Your task to perform on an android device: open a bookmark in the chrome app Image 0: 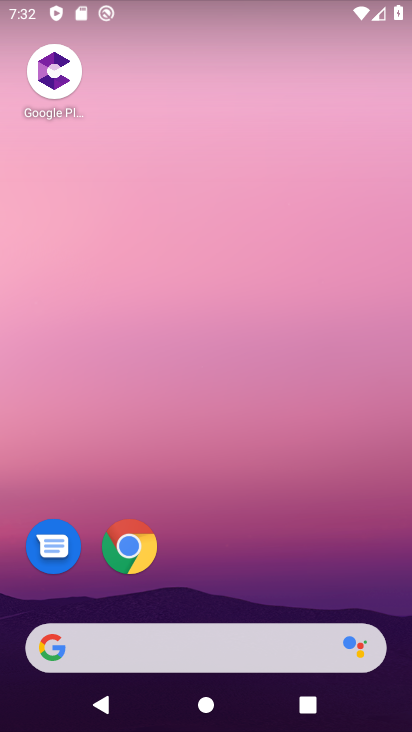
Step 0: click (131, 545)
Your task to perform on an android device: open a bookmark in the chrome app Image 1: 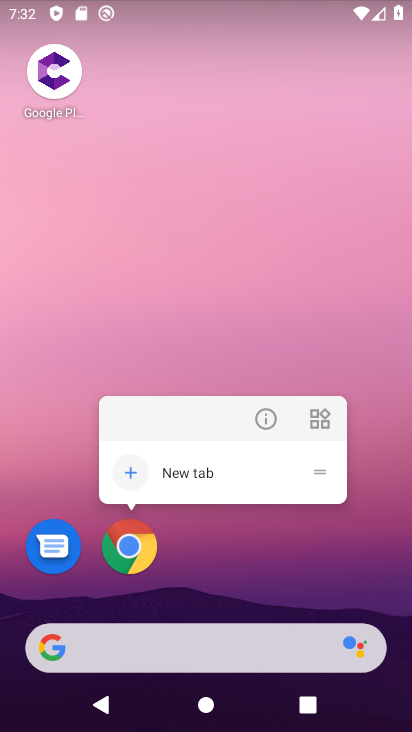
Step 1: click (131, 545)
Your task to perform on an android device: open a bookmark in the chrome app Image 2: 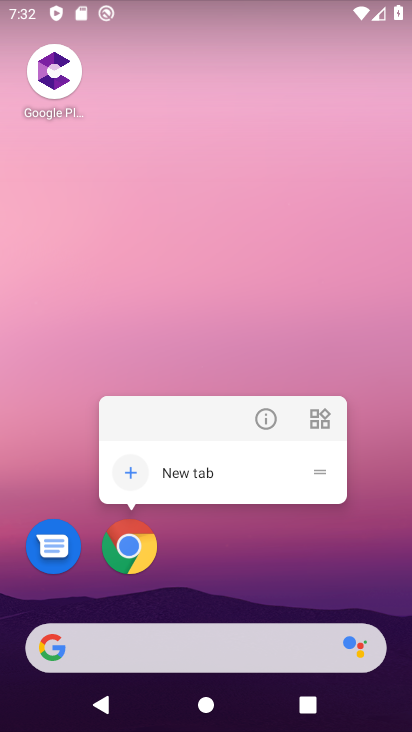
Step 2: click (131, 545)
Your task to perform on an android device: open a bookmark in the chrome app Image 3: 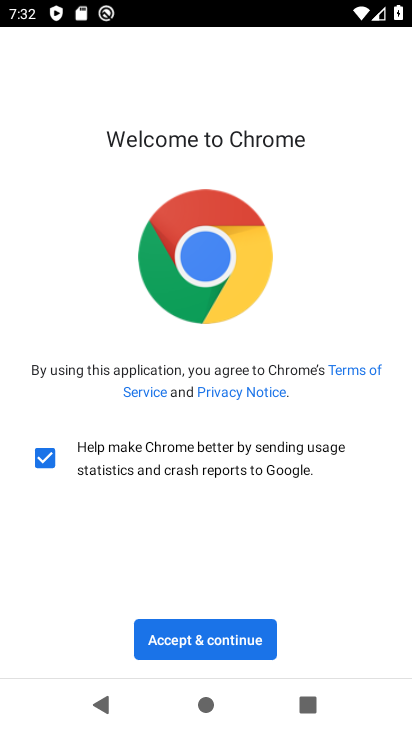
Step 3: click (191, 635)
Your task to perform on an android device: open a bookmark in the chrome app Image 4: 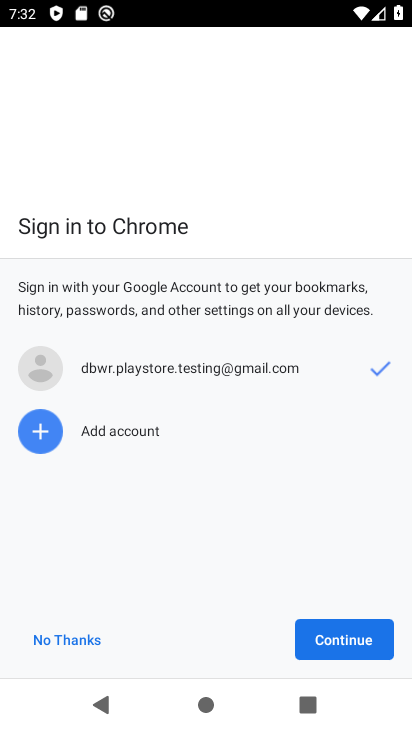
Step 4: click (318, 632)
Your task to perform on an android device: open a bookmark in the chrome app Image 5: 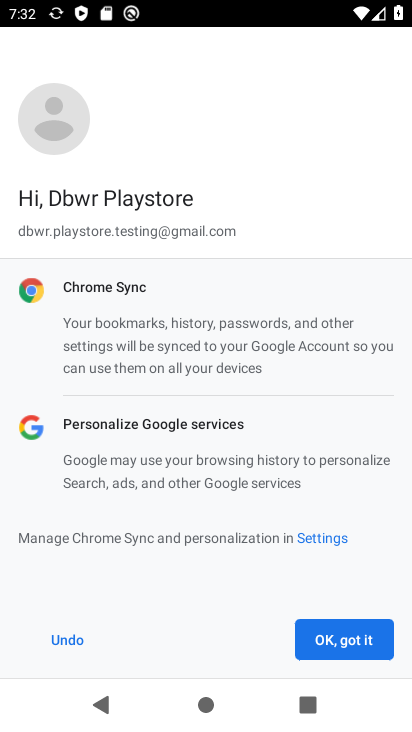
Step 5: click (318, 632)
Your task to perform on an android device: open a bookmark in the chrome app Image 6: 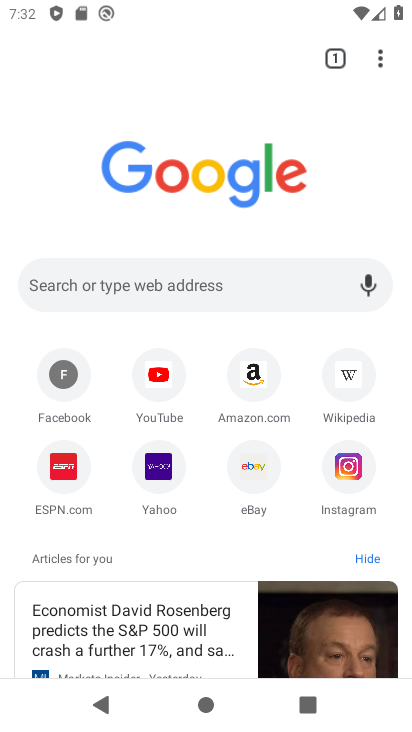
Step 6: click (376, 54)
Your task to perform on an android device: open a bookmark in the chrome app Image 7: 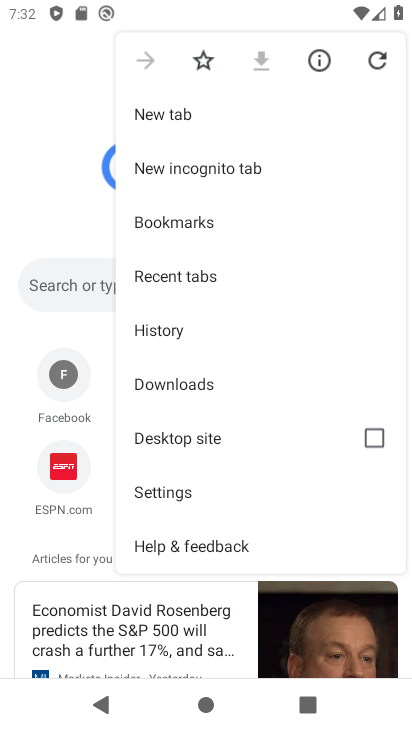
Step 7: click (238, 223)
Your task to perform on an android device: open a bookmark in the chrome app Image 8: 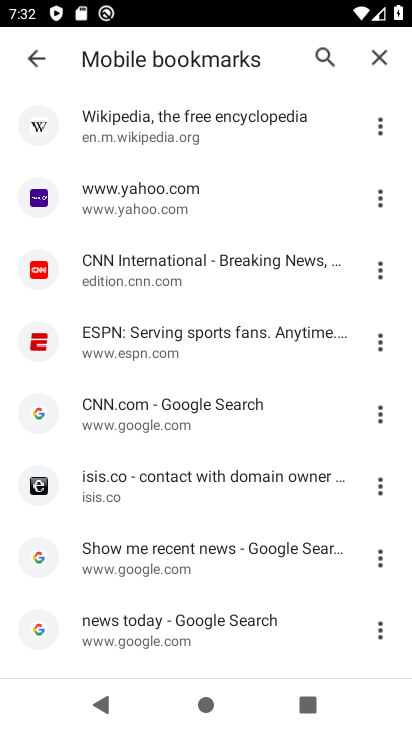
Step 8: click (238, 117)
Your task to perform on an android device: open a bookmark in the chrome app Image 9: 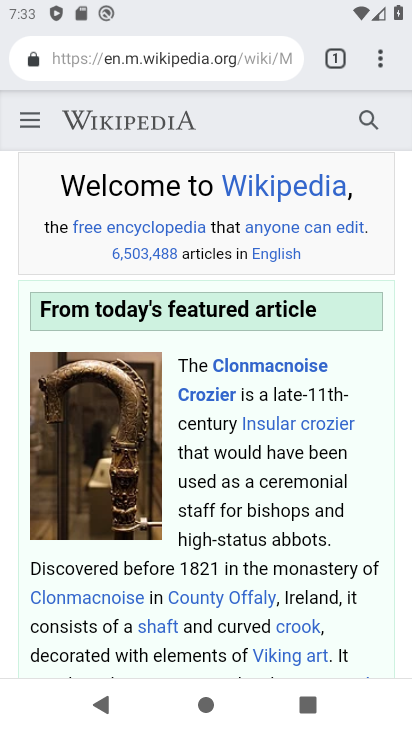
Step 9: task complete